Your task to perform on an android device: open chrome and create a bookmark for the current page Image 0: 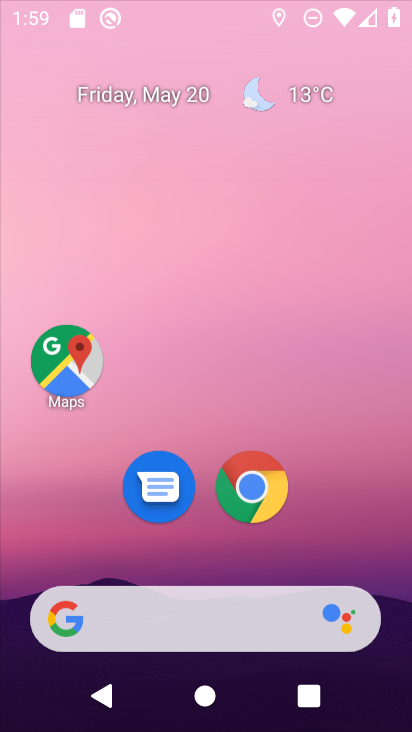
Step 0: press home button
Your task to perform on an android device: open chrome and create a bookmark for the current page Image 1: 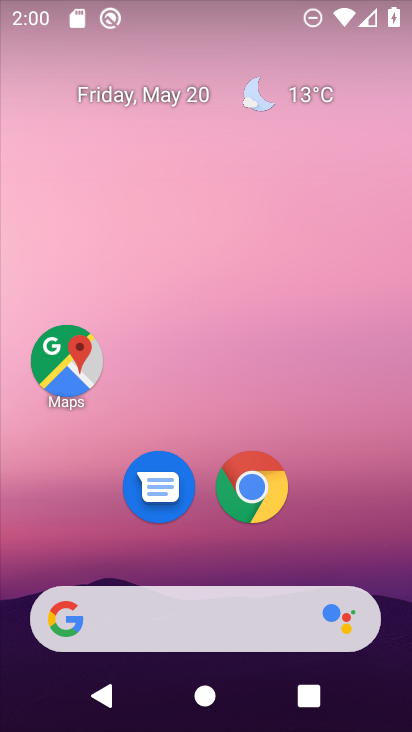
Step 1: drag from (208, 550) to (226, 30)
Your task to perform on an android device: open chrome and create a bookmark for the current page Image 2: 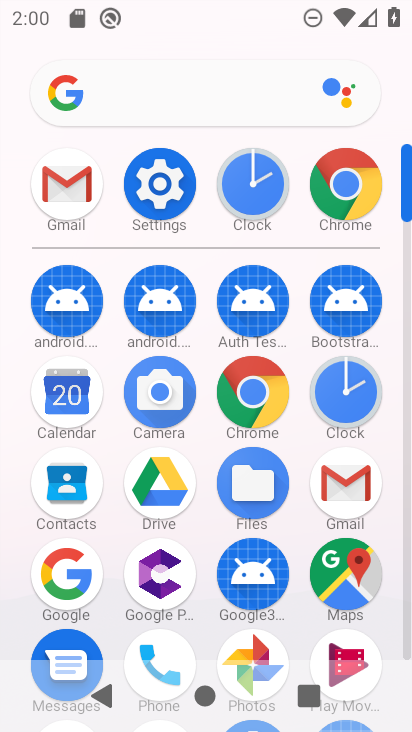
Step 2: click (347, 175)
Your task to perform on an android device: open chrome and create a bookmark for the current page Image 3: 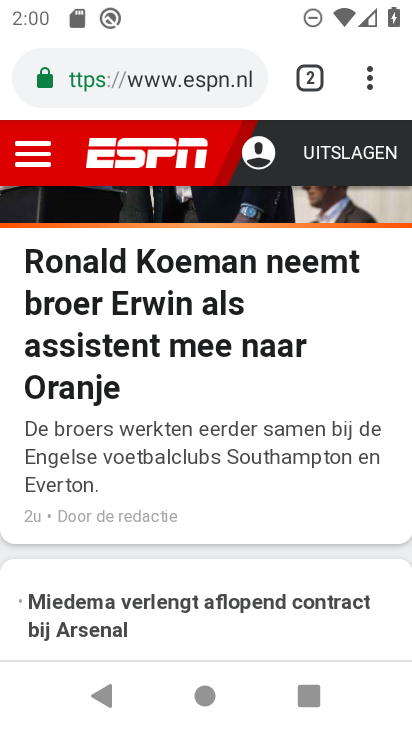
Step 3: click (371, 66)
Your task to perform on an android device: open chrome and create a bookmark for the current page Image 4: 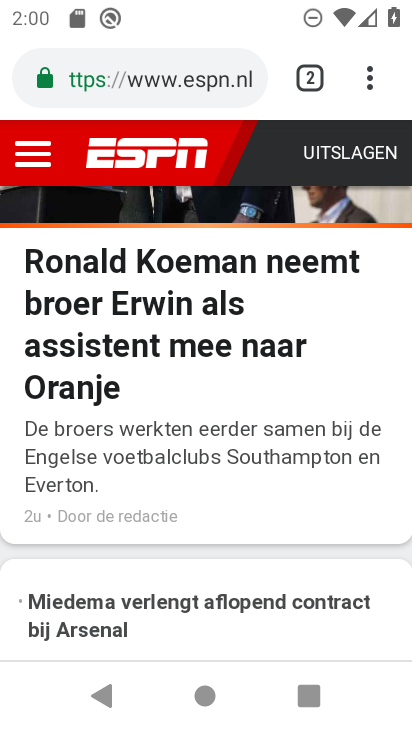
Step 4: click (365, 61)
Your task to perform on an android device: open chrome and create a bookmark for the current page Image 5: 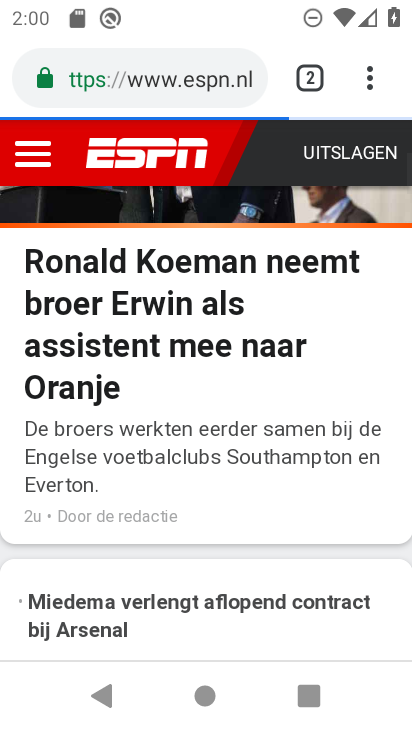
Step 5: click (367, 77)
Your task to perform on an android device: open chrome and create a bookmark for the current page Image 6: 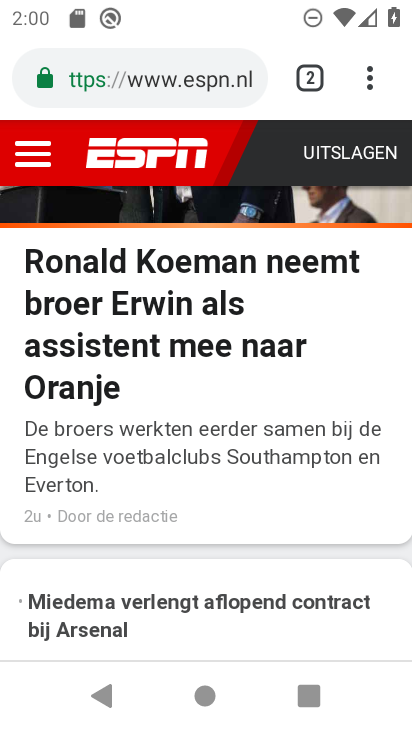
Step 6: click (367, 77)
Your task to perform on an android device: open chrome and create a bookmark for the current page Image 7: 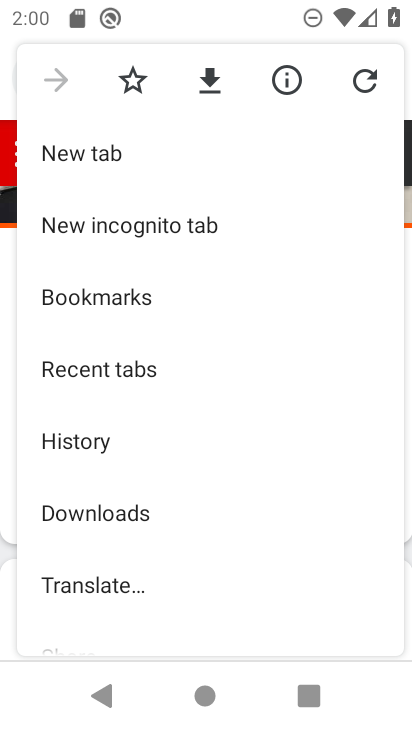
Step 7: click (130, 80)
Your task to perform on an android device: open chrome and create a bookmark for the current page Image 8: 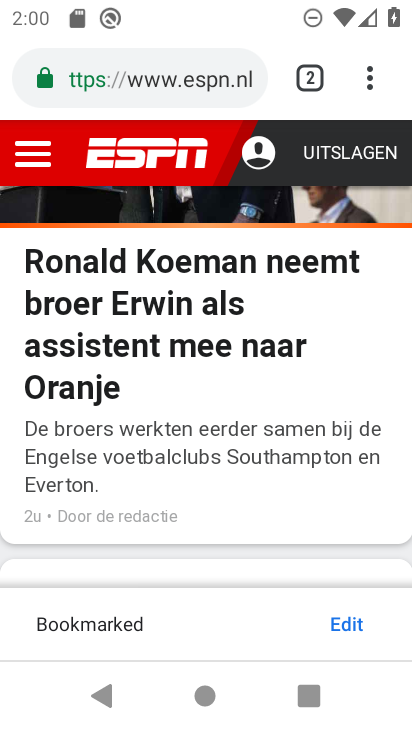
Step 8: task complete